Your task to perform on an android device: turn on bluetooth scan Image 0: 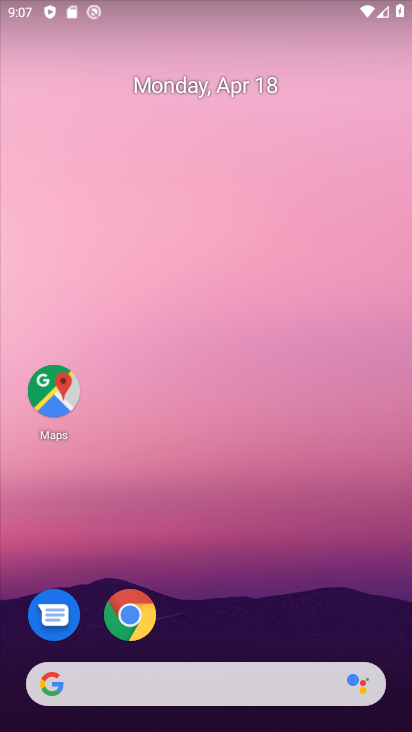
Step 0: drag from (204, 538) to (213, 293)
Your task to perform on an android device: turn on bluetooth scan Image 1: 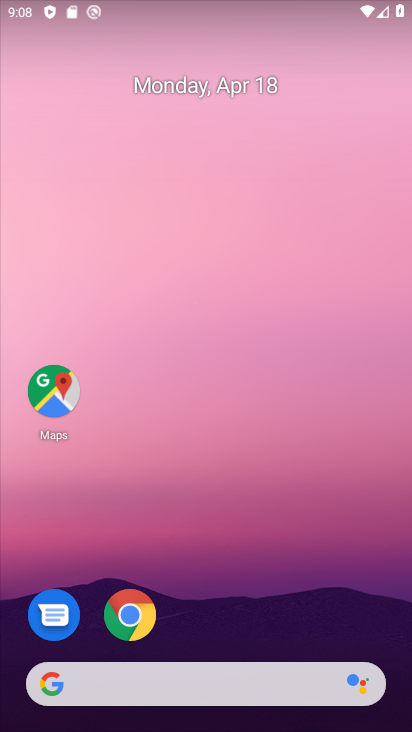
Step 1: drag from (250, 657) to (252, 229)
Your task to perform on an android device: turn on bluetooth scan Image 2: 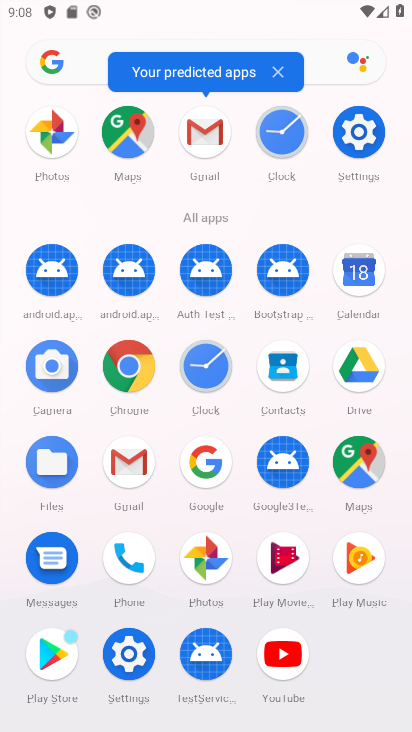
Step 2: click (366, 129)
Your task to perform on an android device: turn on bluetooth scan Image 3: 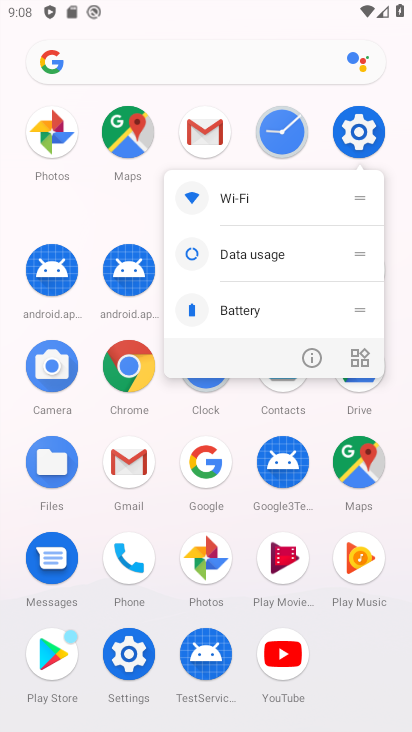
Step 3: click (345, 128)
Your task to perform on an android device: turn on bluetooth scan Image 4: 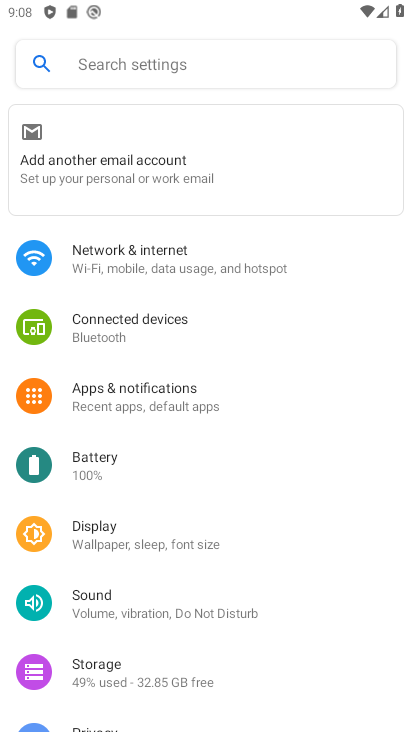
Step 4: drag from (155, 602) to (181, 312)
Your task to perform on an android device: turn on bluetooth scan Image 5: 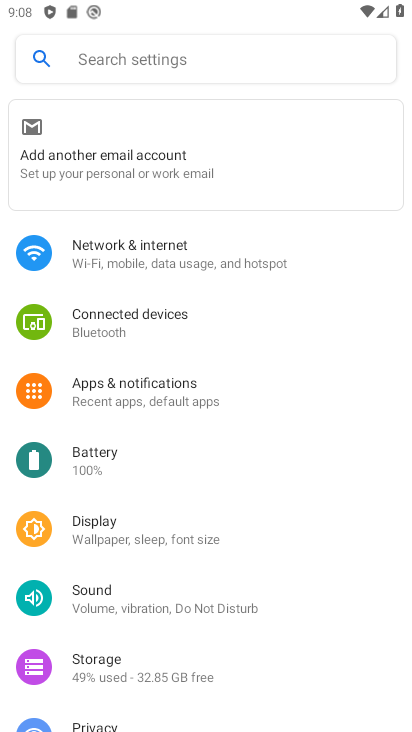
Step 5: drag from (115, 688) to (153, 317)
Your task to perform on an android device: turn on bluetooth scan Image 6: 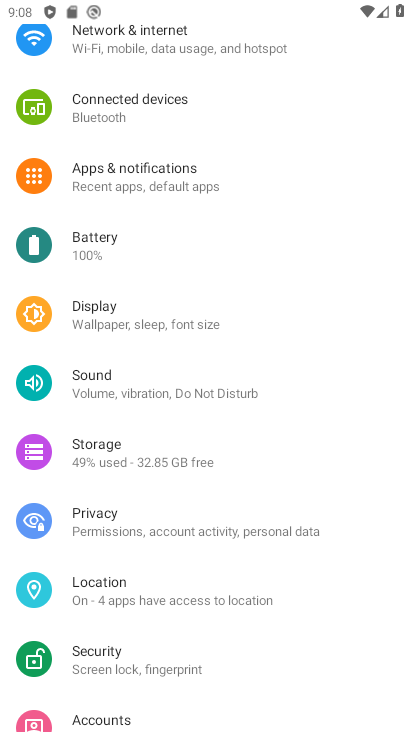
Step 6: click (113, 589)
Your task to perform on an android device: turn on bluetooth scan Image 7: 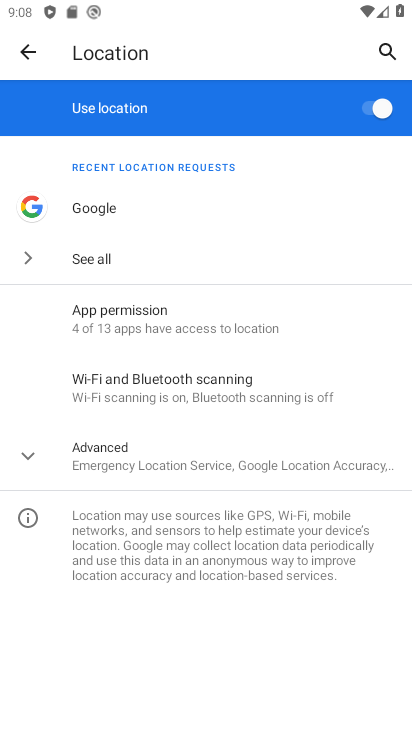
Step 7: click (114, 380)
Your task to perform on an android device: turn on bluetooth scan Image 8: 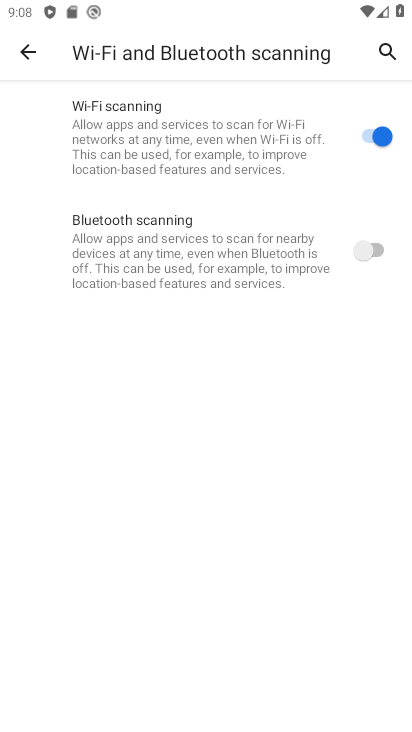
Step 8: click (375, 245)
Your task to perform on an android device: turn on bluetooth scan Image 9: 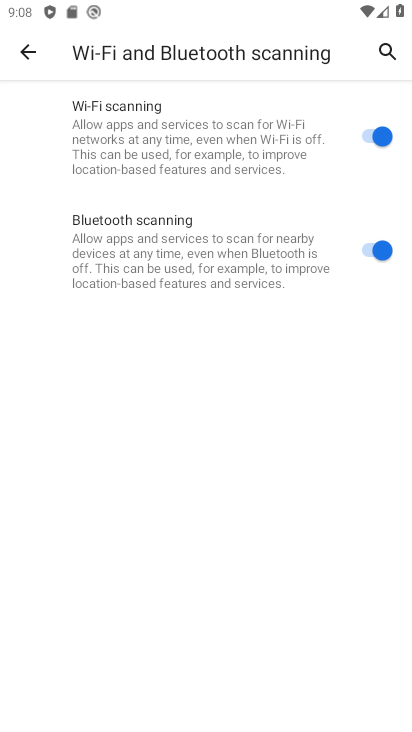
Step 9: task complete